Your task to perform on an android device: turn on bluetooth scan Image 0: 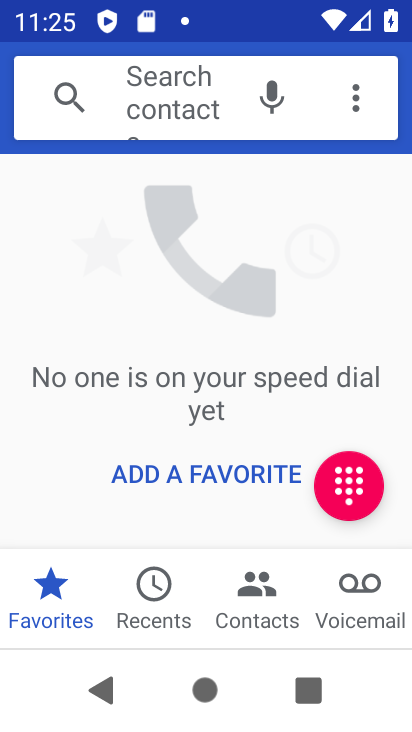
Step 0: press home button
Your task to perform on an android device: turn on bluetooth scan Image 1: 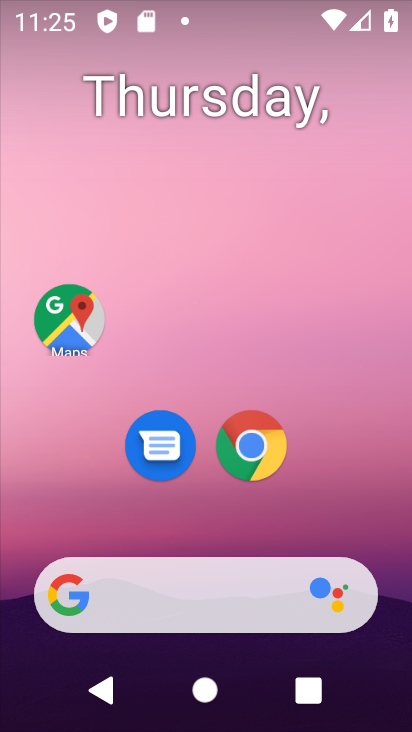
Step 1: drag from (196, 531) to (214, 92)
Your task to perform on an android device: turn on bluetooth scan Image 2: 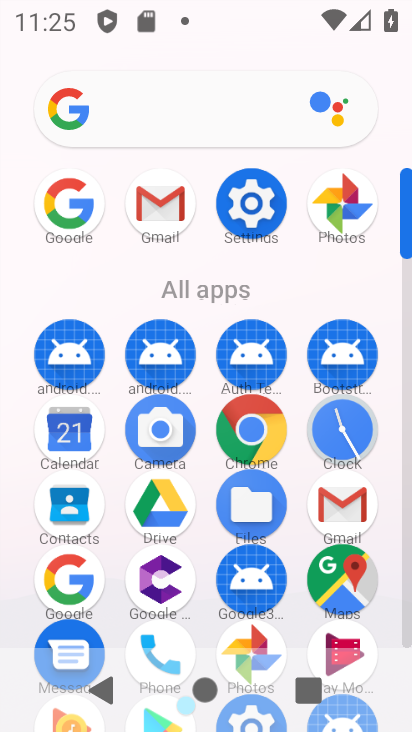
Step 2: click (245, 195)
Your task to perform on an android device: turn on bluetooth scan Image 3: 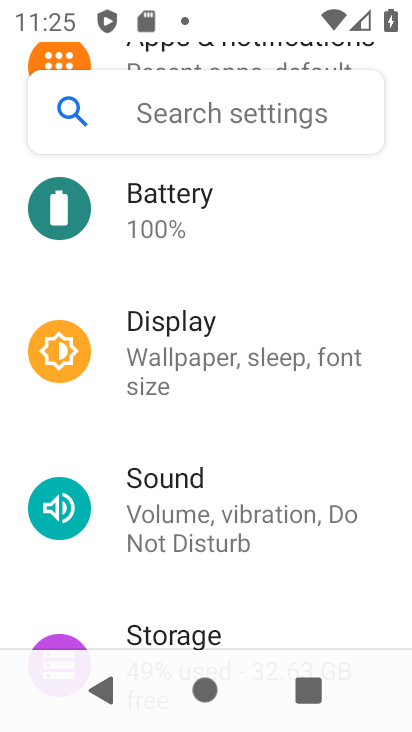
Step 3: drag from (281, 536) to (276, 232)
Your task to perform on an android device: turn on bluetooth scan Image 4: 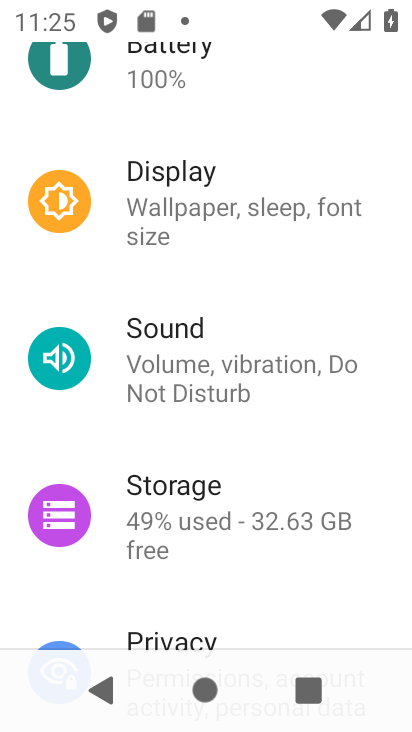
Step 4: drag from (249, 587) to (258, 270)
Your task to perform on an android device: turn on bluetooth scan Image 5: 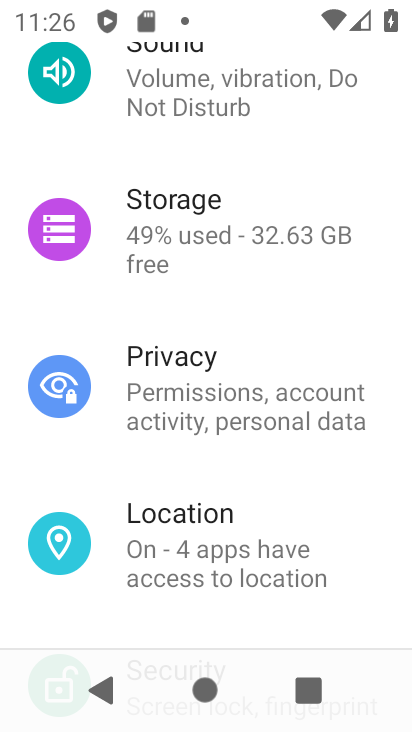
Step 5: click (216, 530)
Your task to perform on an android device: turn on bluetooth scan Image 6: 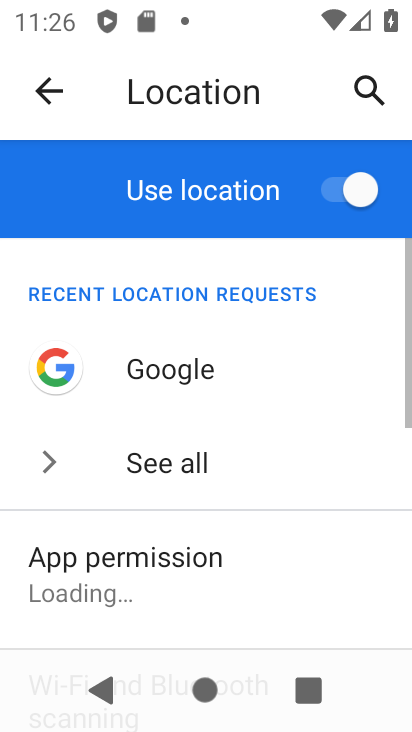
Step 6: drag from (271, 566) to (280, 253)
Your task to perform on an android device: turn on bluetooth scan Image 7: 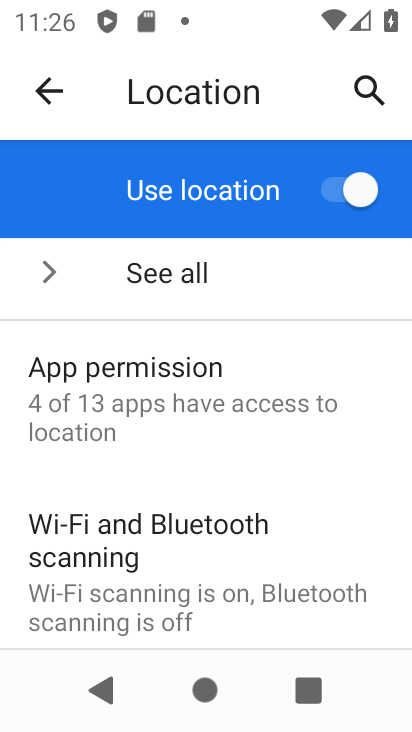
Step 7: drag from (246, 592) to (258, 346)
Your task to perform on an android device: turn on bluetooth scan Image 8: 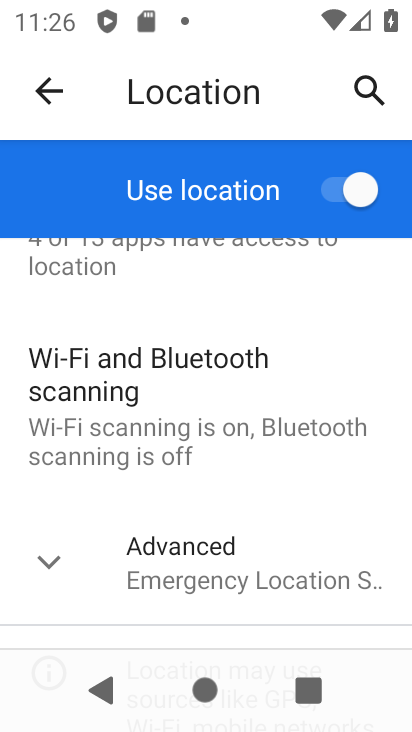
Step 8: click (197, 439)
Your task to perform on an android device: turn on bluetooth scan Image 9: 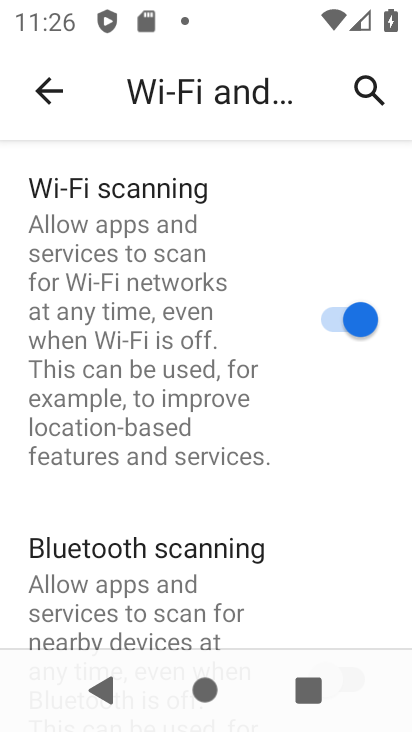
Step 9: drag from (276, 565) to (245, 256)
Your task to perform on an android device: turn on bluetooth scan Image 10: 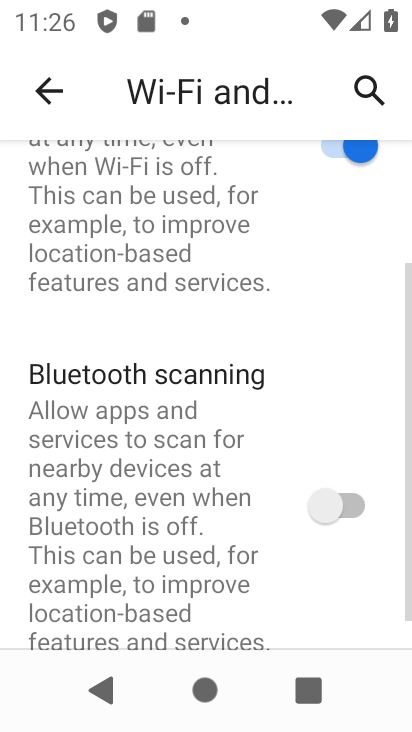
Step 10: click (356, 514)
Your task to perform on an android device: turn on bluetooth scan Image 11: 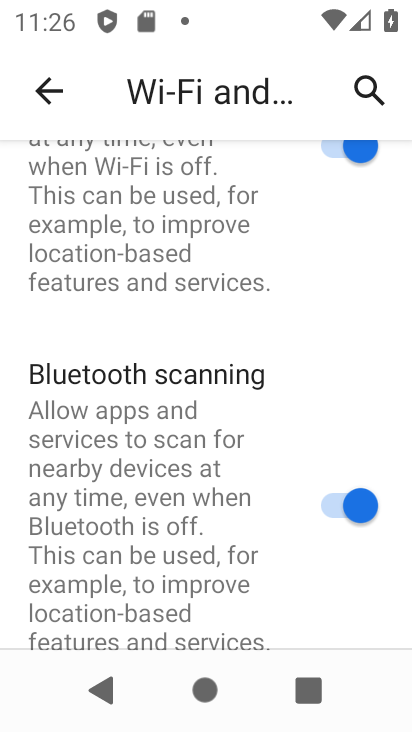
Step 11: task complete